Your task to perform on an android device: Open network settings Image 0: 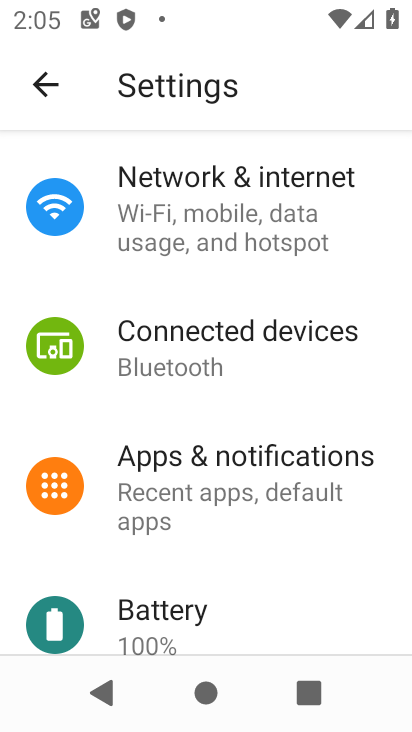
Step 0: task complete